Your task to perform on an android device: turn off location Image 0: 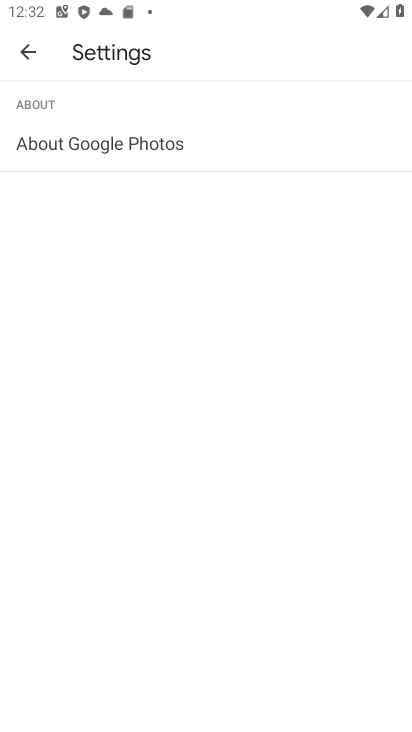
Step 0: task complete